Your task to perform on an android device: turn off smart reply in the gmail app Image 0: 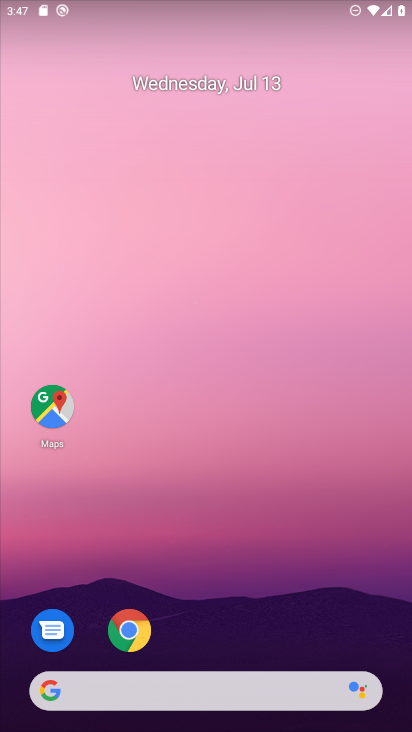
Step 0: drag from (352, 586) to (373, 0)
Your task to perform on an android device: turn off smart reply in the gmail app Image 1: 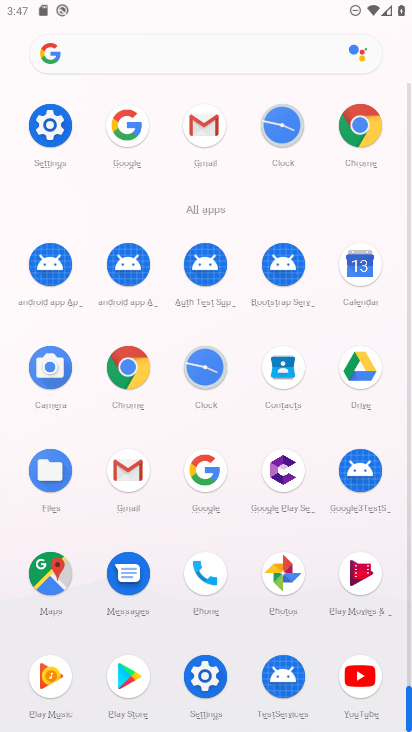
Step 1: click (210, 143)
Your task to perform on an android device: turn off smart reply in the gmail app Image 2: 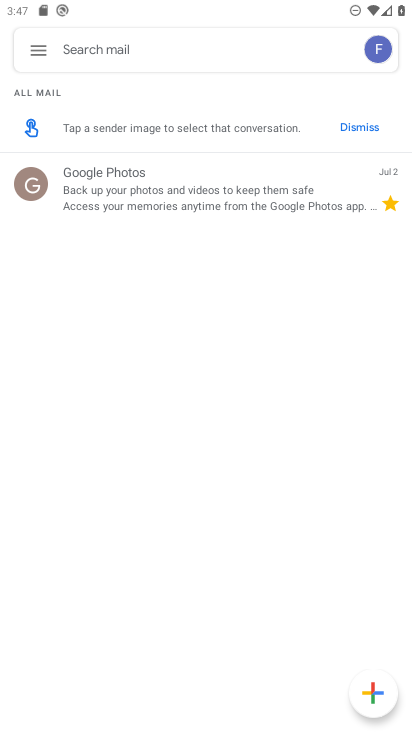
Step 2: click (30, 54)
Your task to perform on an android device: turn off smart reply in the gmail app Image 3: 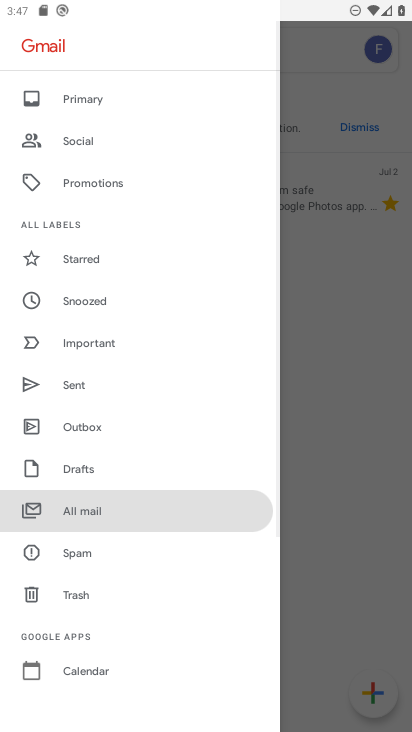
Step 3: drag from (178, 544) to (129, 155)
Your task to perform on an android device: turn off smart reply in the gmail app Image 4: 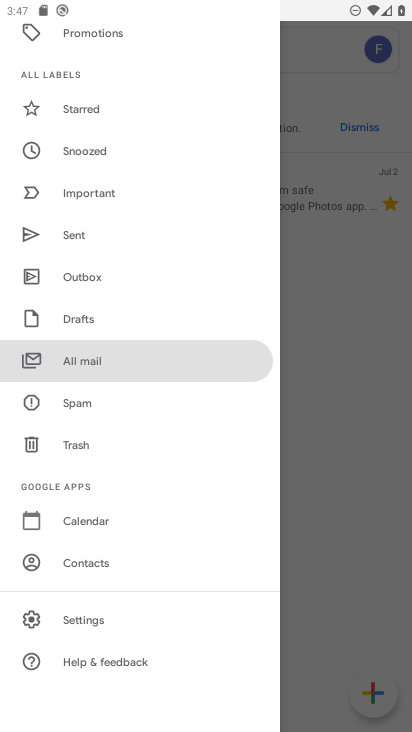
Step 4: click (118, 618)
Your task to perform on an android device: turn off smart reply in the gmail app Image 5: 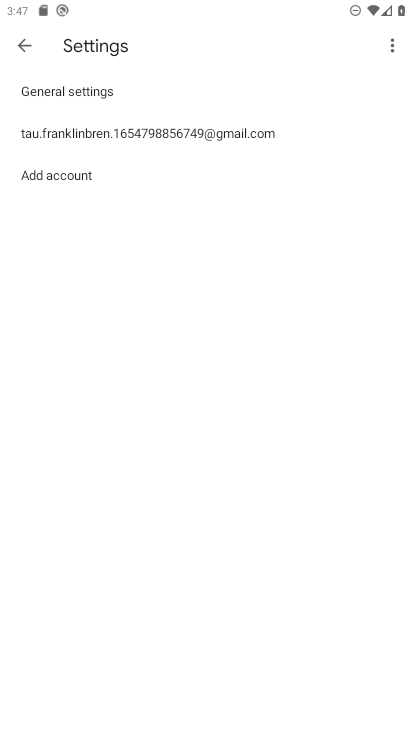
Step 5: click (71, 128)
Your task to perform on an android device: turn off smart reply in the gmail app Image 6: 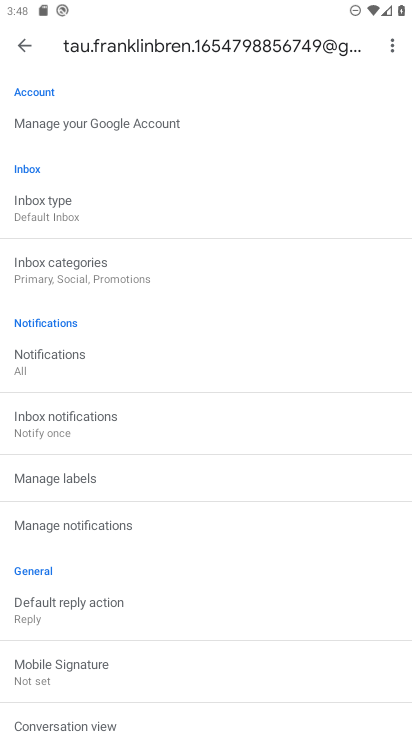
Step 6: drag from (239, 616) to (133, 242)
Your task to perform on an android device: turn off smart reply in the gmail app Image 7: 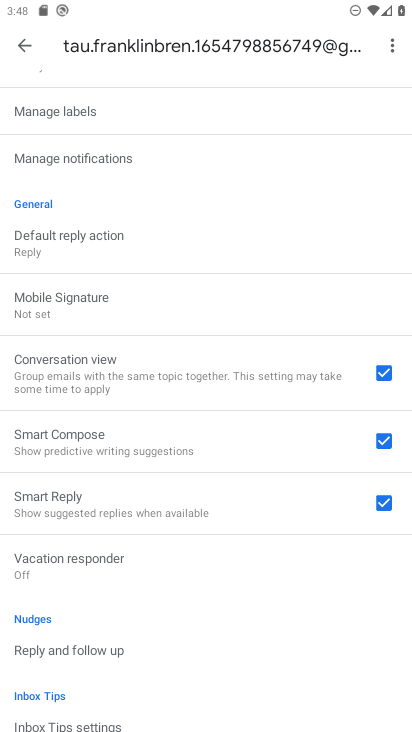
Step 7: drag from (147, 666) to (129, 430)
Your task to perform on an android device: turn off smart reply in the gmail app Image 8: 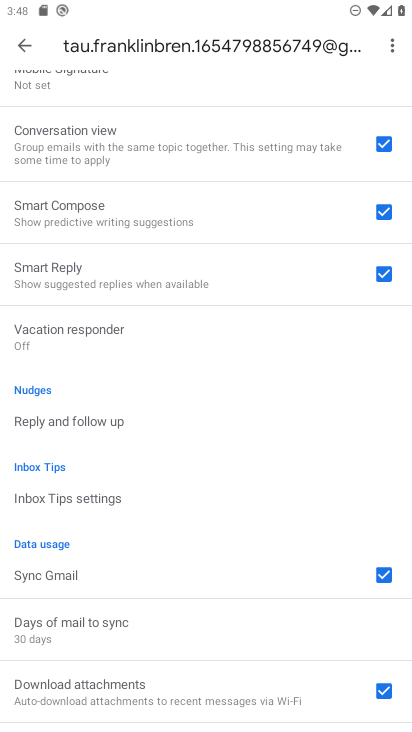
Step 8: click (380, 275)
Your task to perform on an android device: turn off smart reply in the gmail app Image 9: 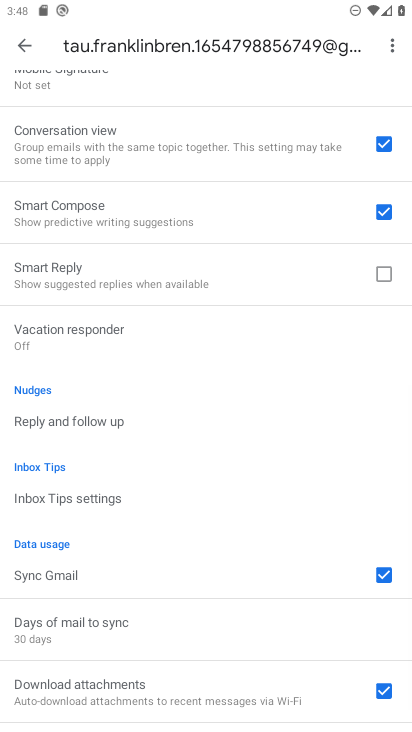
Step 9: task complete